Your task to perform on an android device: check battery use Image 0: 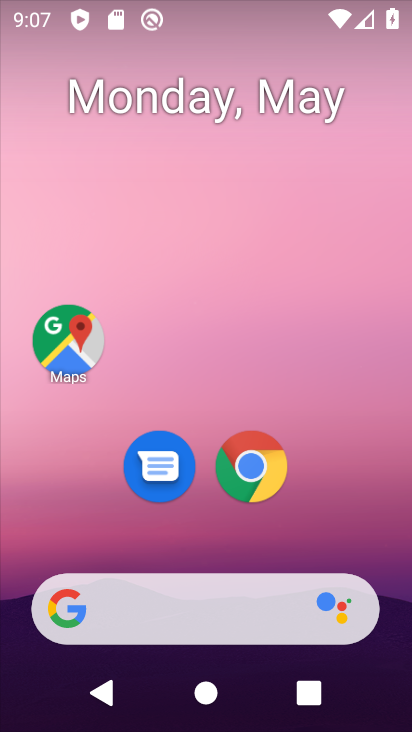
Step 0: drag from (349, 520) to (350, 111)
Your task to perform on an android device: check battery use Image 1: 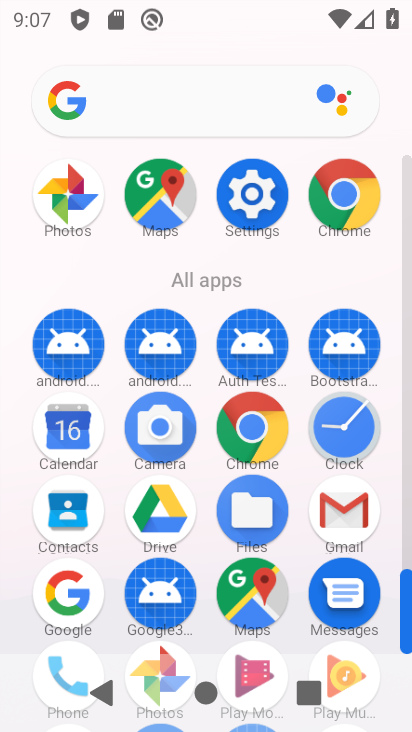
Step 1: click (236, 199)
Your task to perform on an android device: check battery use Image 2: 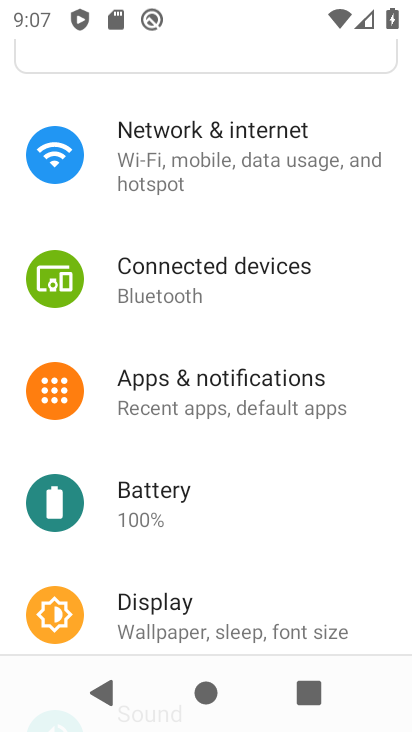
Step 2: click (169, 499)
Your task to perform on an android device: check battery use Image 3: 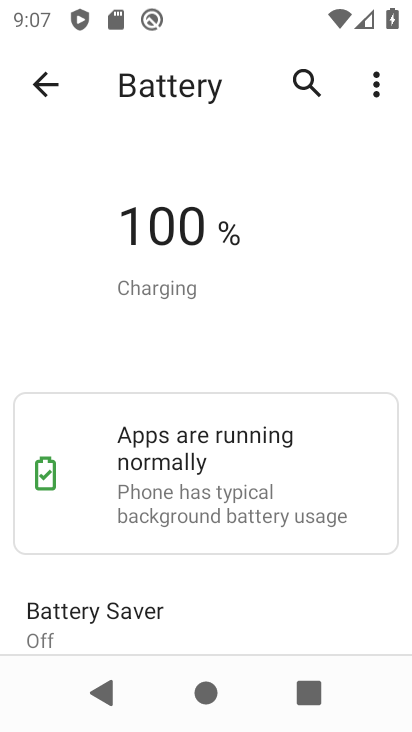
Step 3: task complete